Your task to perform on an android device: Open maps Image 0: 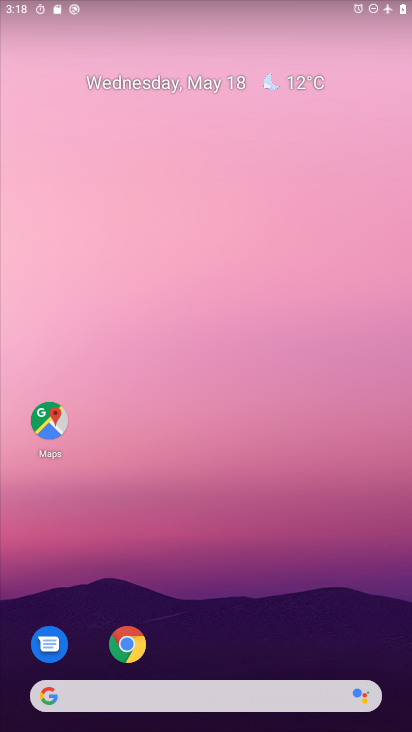
Step 0: click (44, 420)
Your task to perform on an android device: Open maps Image 1: 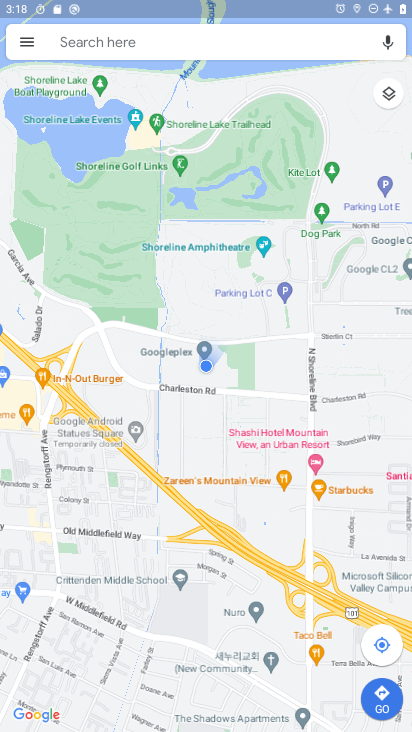
Step 1: task complete